Your task to perform on an android device: set the timer Image 0: 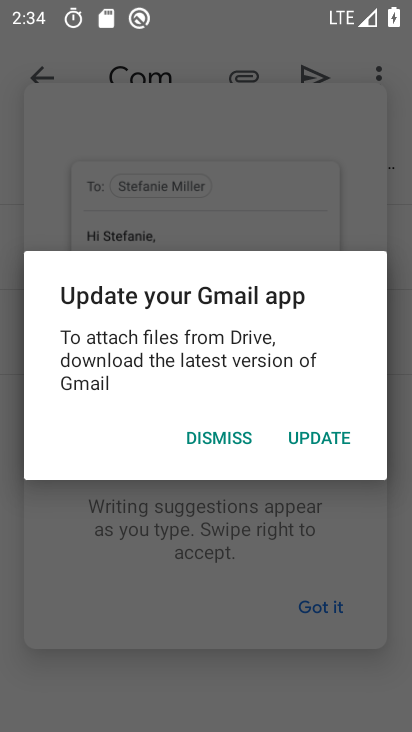
Step 0: press home button
Your task to perform on an android device: set the timer Image 1: 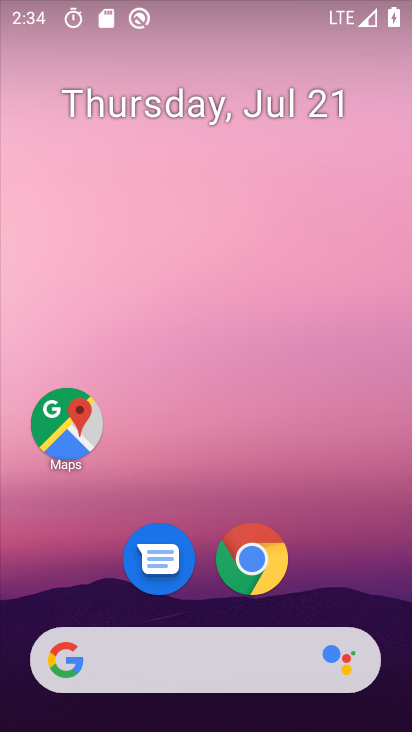
Step 1: drag from (352, 575) to (379, 80)
Your task to perform on an android device: set the timer Image 2: 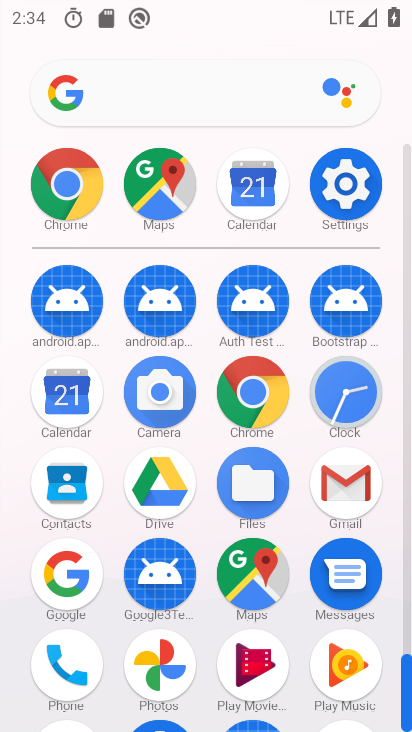
Step 2: click (345, 391)
Your task to perform on an android device: set the timer Image 3: 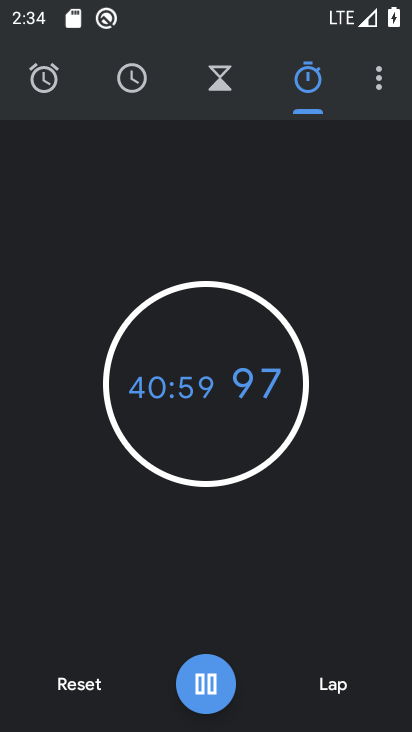
Step 3: click (229, 96)
Your task to perform on an android device: set the timer Image 4: 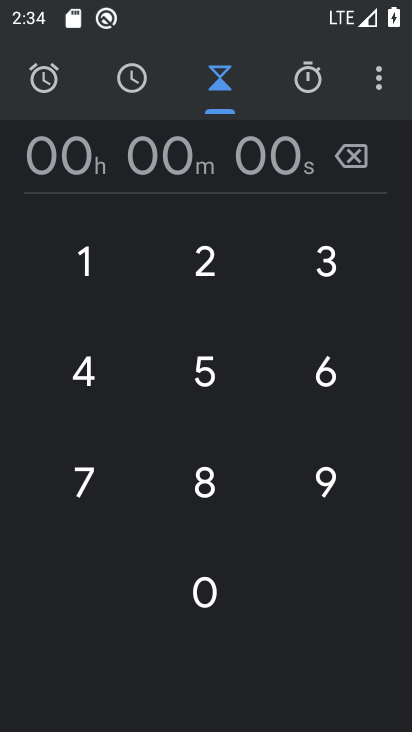
Step 4: click (226, 399)
Your task to perform on an android device: set the timer Image 5: 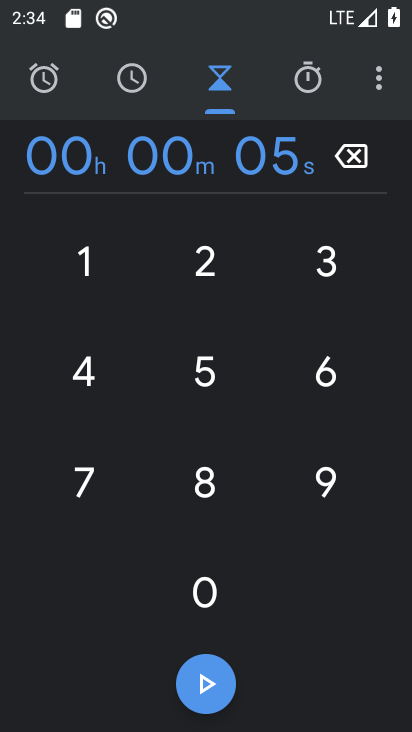
Step 5: task complete